Your task to perform on an android device: add a contact in the contacts app Image 0: 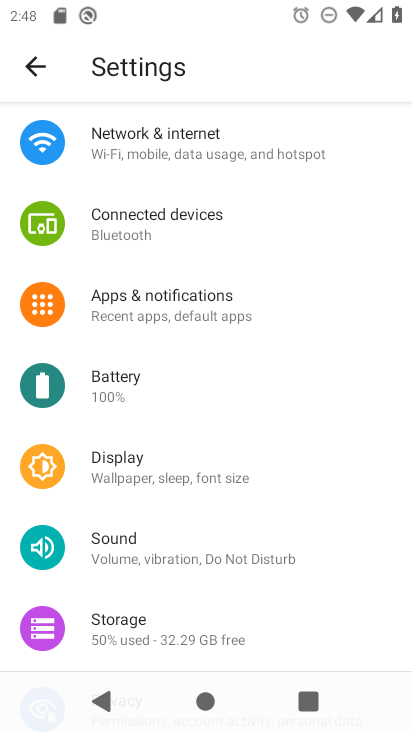
Step 0: press home button
Your task to perform on an android device: add a contact in the contacts app Image 1: 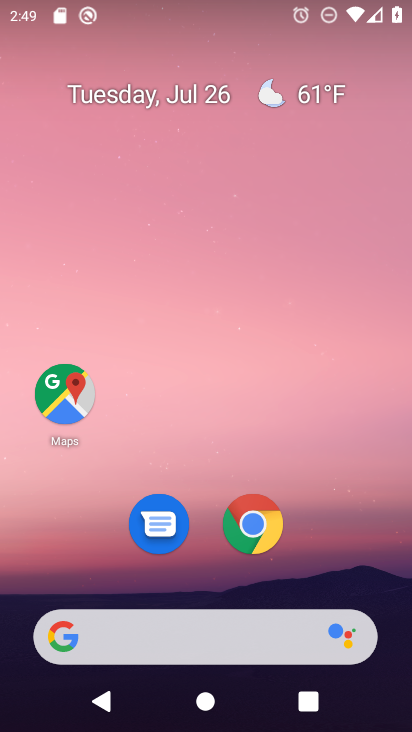
Step 1: drag from (213, 606) to (282, 186)
Your task to perform on an android device: add a contact in the contacts app Image 2: 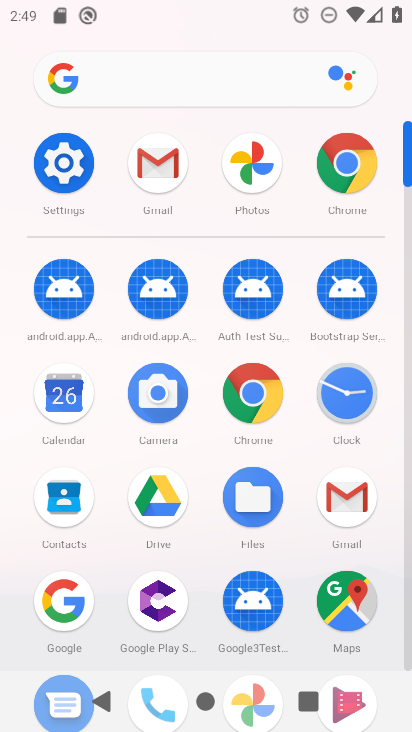
Step 2: click (64, 505)
Your task to perform on an android device: add a contact in the contacts app Image 3: 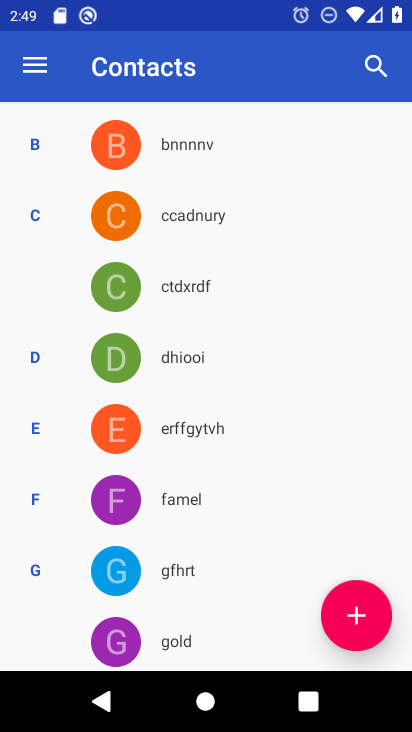
Step 3: click (351, 617)
Your task to perform on an android device: add a contact in the contacts app Image 4: 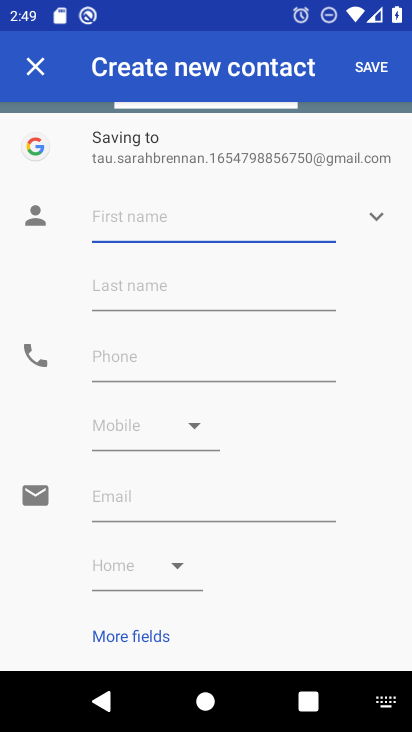
Step 4: type "nuywsadfg"
Your task to perform on an android device: add a contact in the contacts app Image 5: 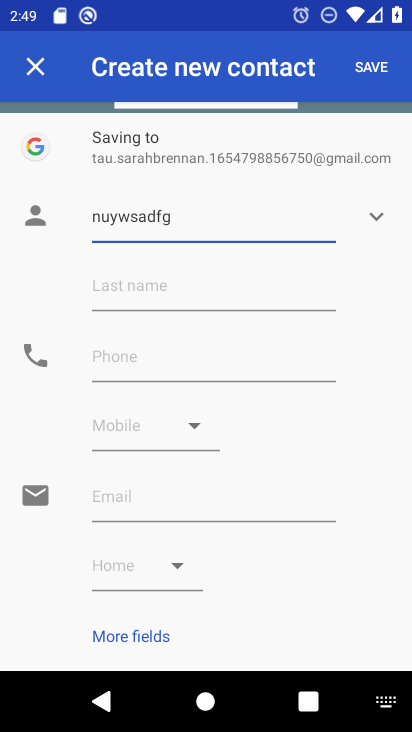
Step 5: click (140, 360)
Your task to perform on an android device: add a contact in the contacts app Image 6: 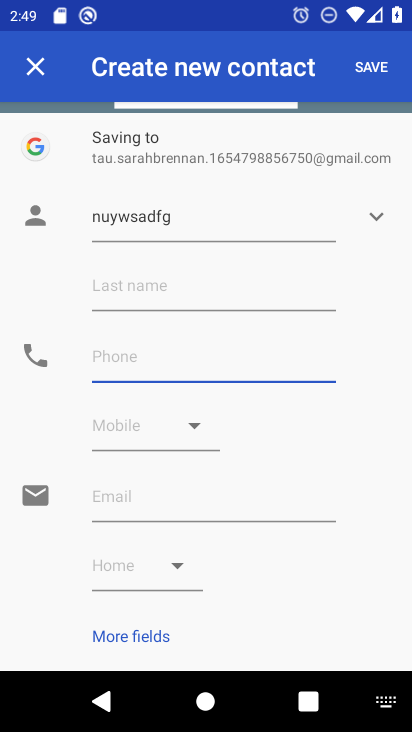
Step 6: type "187658877"
Your task to perform on an android device: add a contact in the contacts app Image 7: 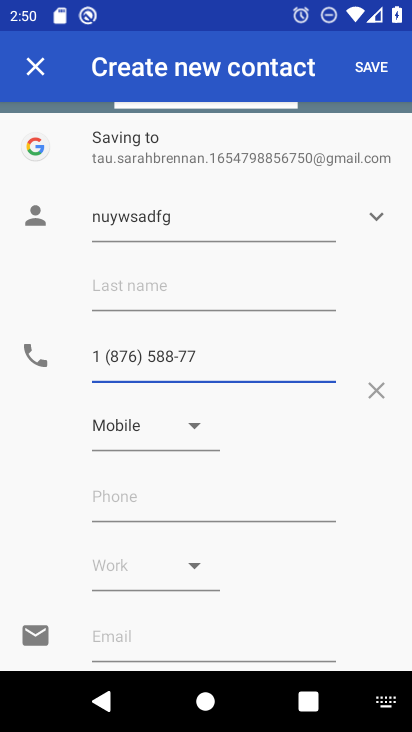
Step 7: click (368, 58)
Your task to perform on an android device: add a contact in the contacts app Image 8: 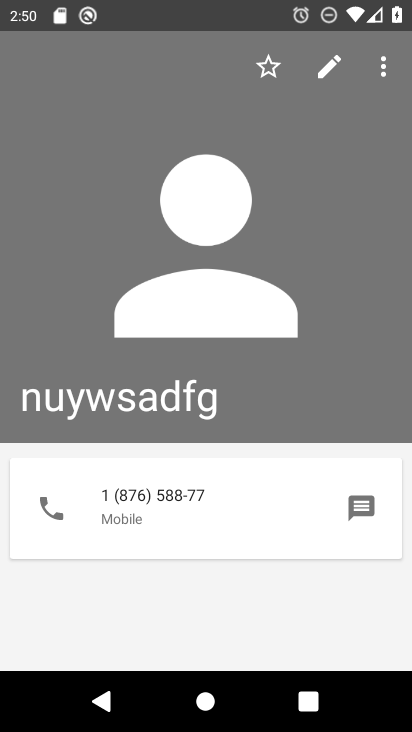
Step 8: task complete